Your task to perform on an android device: visit the assistant section in the google photos Image 0: 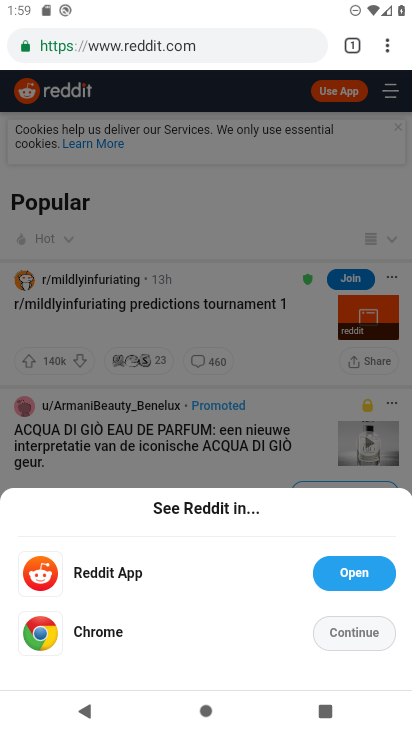
Step 0: press home button
Your task to perform on an android device: visit the assistant section in the google photos Image 1: 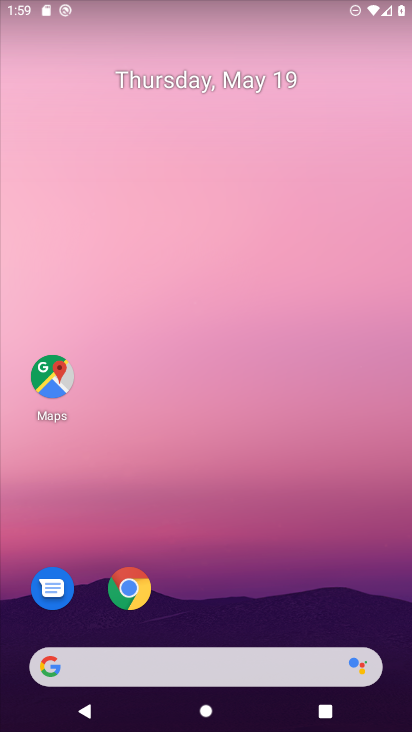
Step 1: drag from (302, 621) to (324, 2)
Your task to perform on an android device: visit the assistant section in the google photos Image 2: 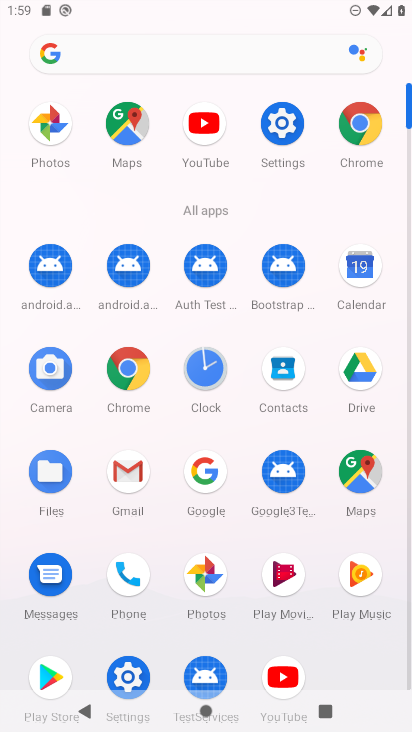
Step 2: click (40, 129)
Your task to perform on an android device: visit the assistant section in the google photos Image 3: 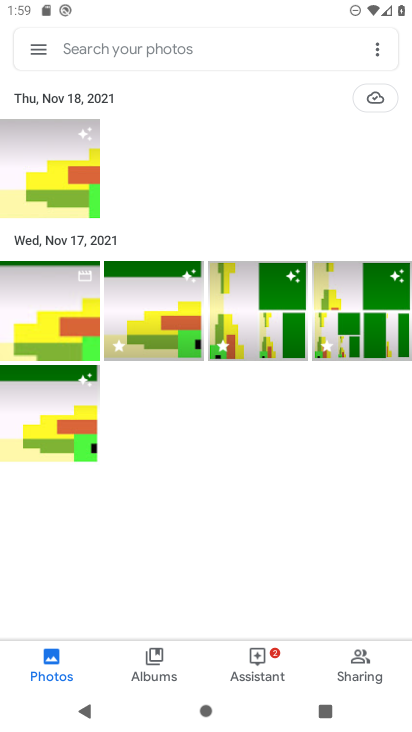
Step 3: click (267, 657)
Your task to perform on an android device: visit the assistant section in the google photos Image 4: 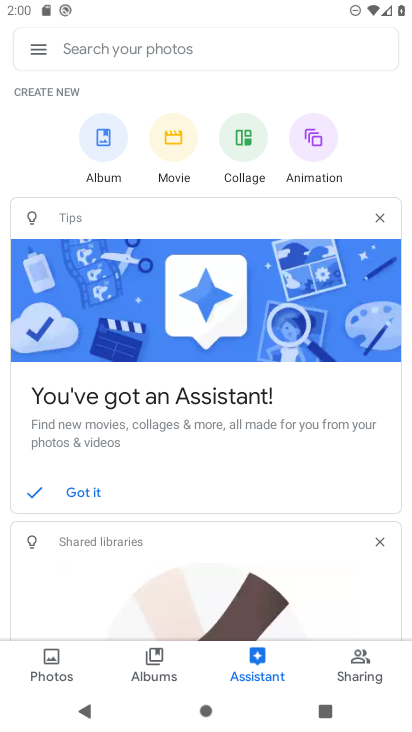
Step 4: task complete